Your task to perform on an android device: turn notification dots off Image 0: 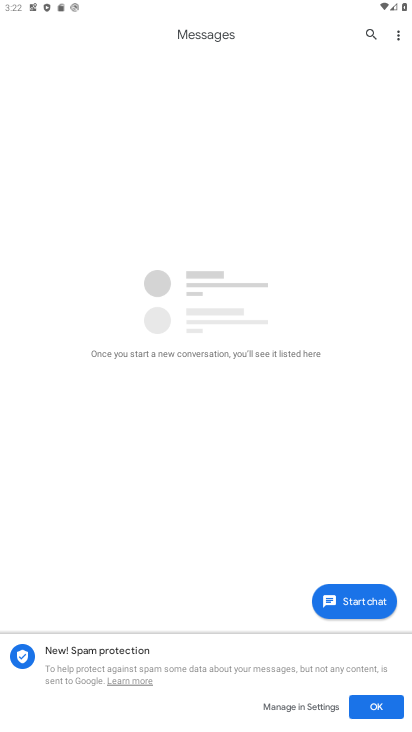
Step 0: press home button
Your task to perform on an android device: turn notification dots off Image 1: 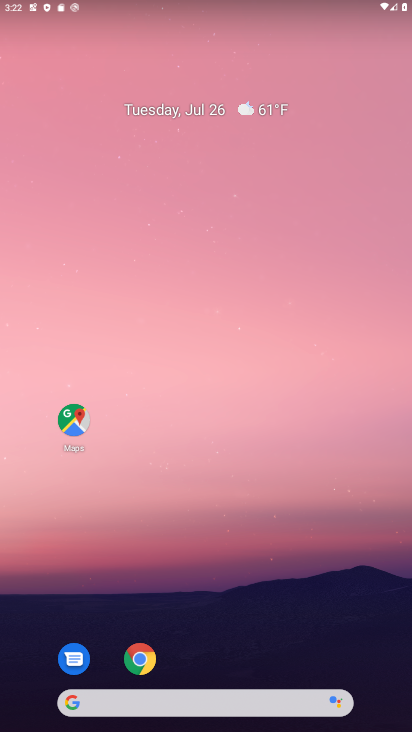
Step 1: drag from (211, 617) to (260, 49)
Your task to perform on an android device: turn notification dots off Image 2: 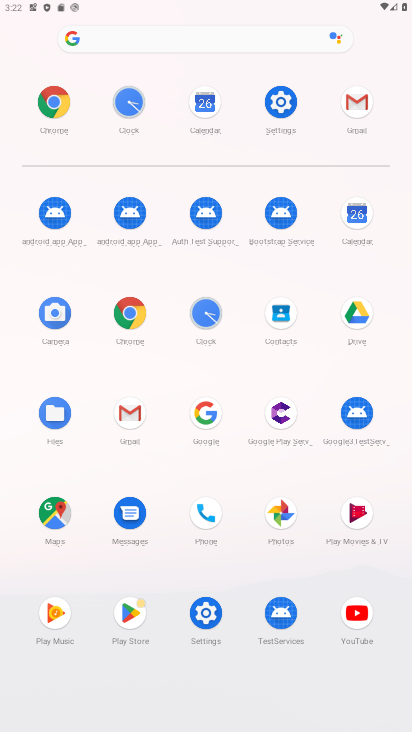
Step 2: click (279, 102)
Your task to perform on an android device: turn notification dots off Image 3: 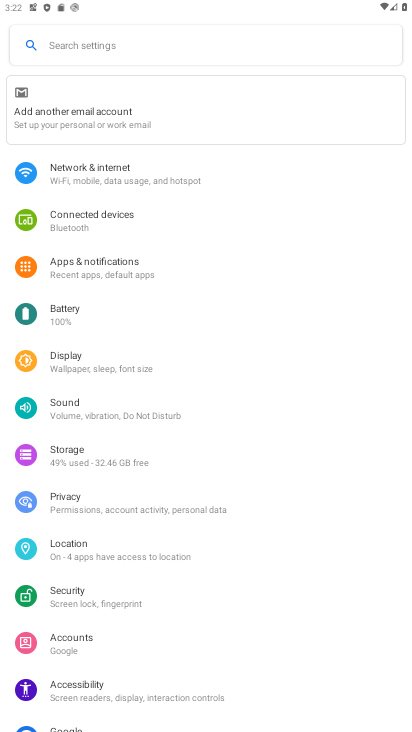
Step 3: click (74, 274)
Your task to perform on an android device: turn notification dots off Image 4: 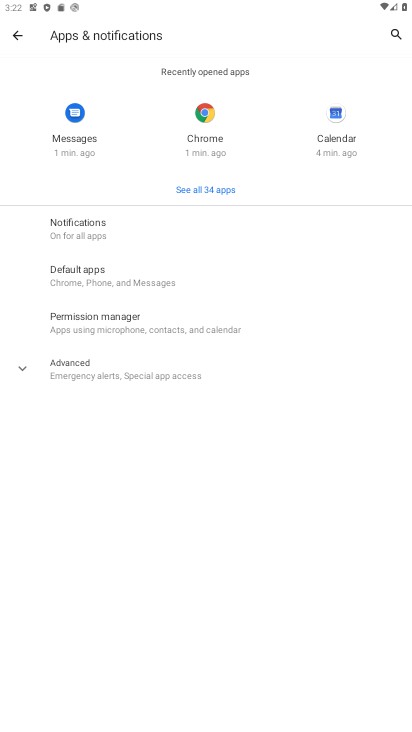
Step 4: click (112, 368)
Your task to perform on an android device: turn notification dots off Image 5: 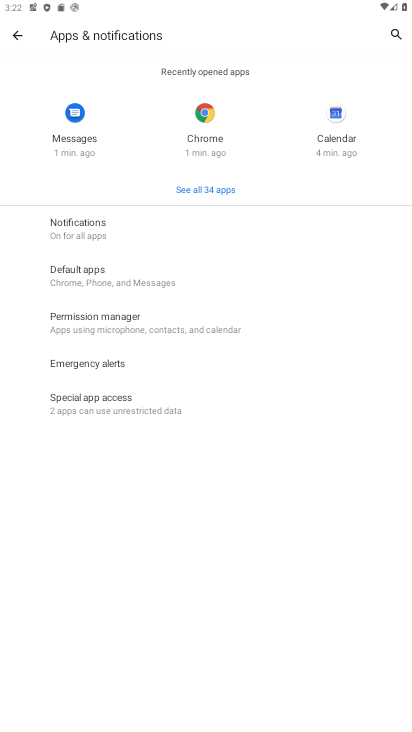
Step 5: click (67, 222)
Your task to perform on an android device: turn notification dots off Image 6: 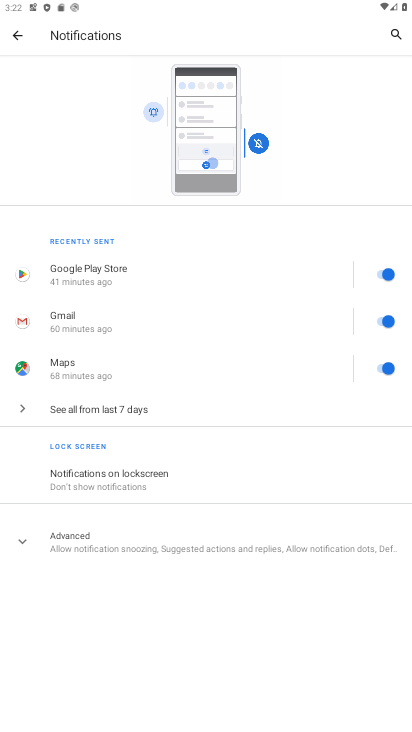
Step 6: click (91, 543)
Your task to perform on an android device: turn notification dots off Image 7: 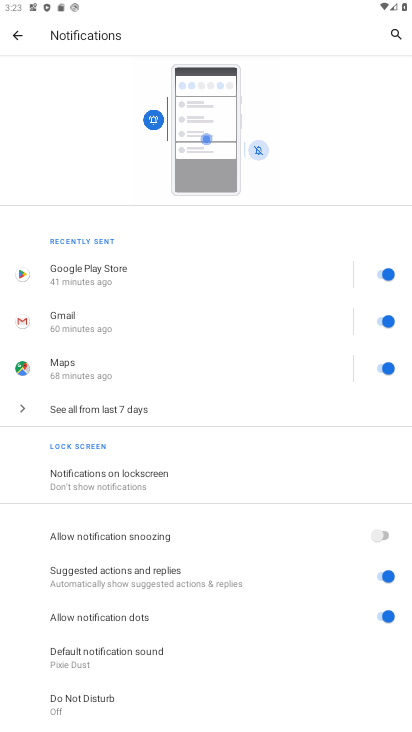
Step 7: click (384, 618)
Your task to perform on an android device: turn notification dots off Image 8: 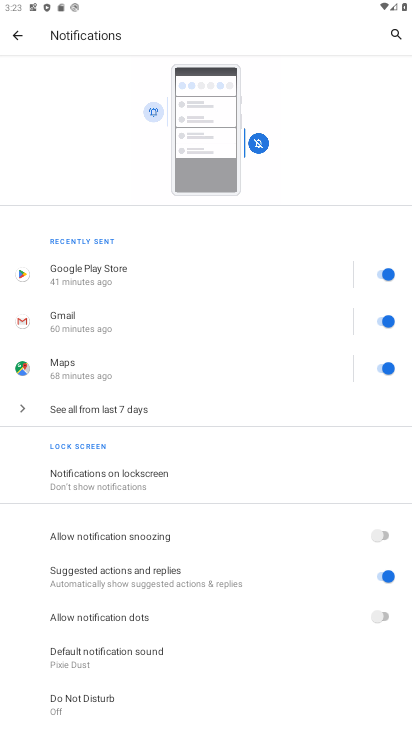
Step 8: task complete